Your task to perform on an android device: delete browsing data in the chrome app Image 0: 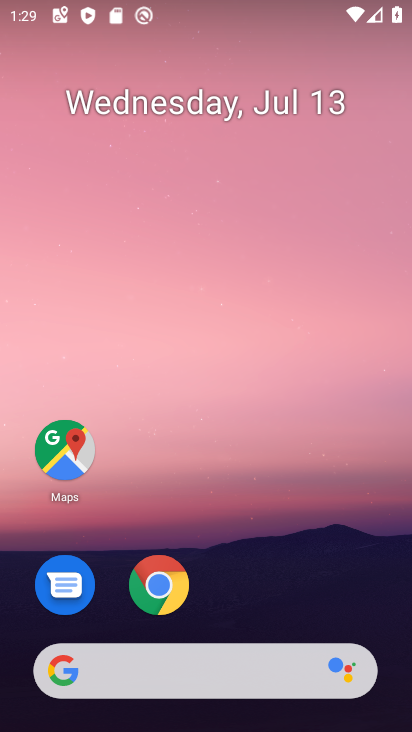
Step 0: click (159, 591)
Your task to perform on an android device: delete browsing data in the chrome app Image 1: 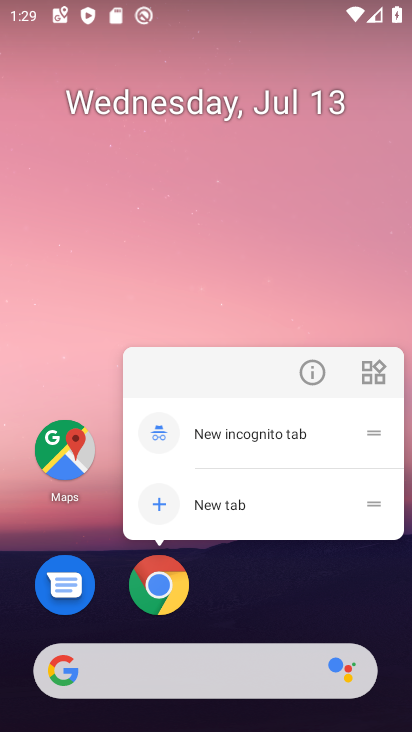
Step 1: click (170, 589)
Your task to perform on an android device: delete browsing data in the chrome app Image 2: 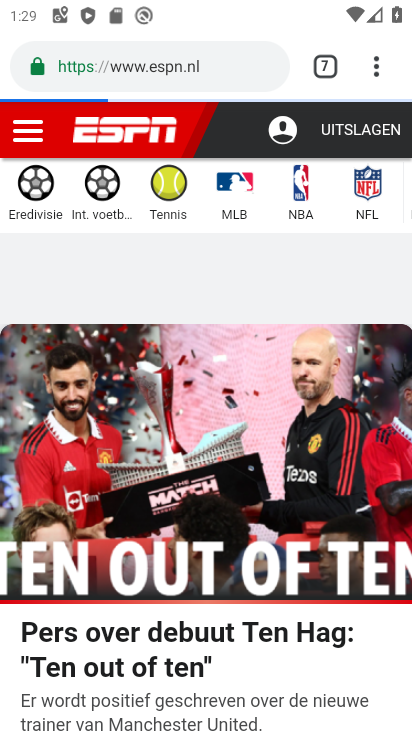
Step 2: drag from (378, 74) to (186, 586)
Your task to perform on an android device: delete browsing data in the chrome app Image 3: 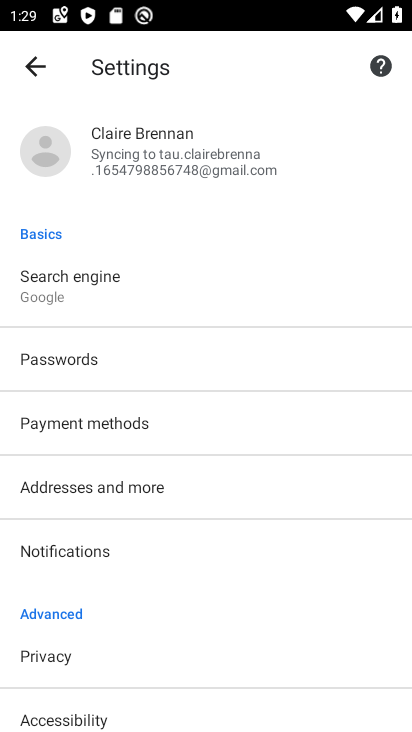
Step 3: click (62, 660)
Your task to perform on an android device: delete browsing data in the chrome app Image 4: 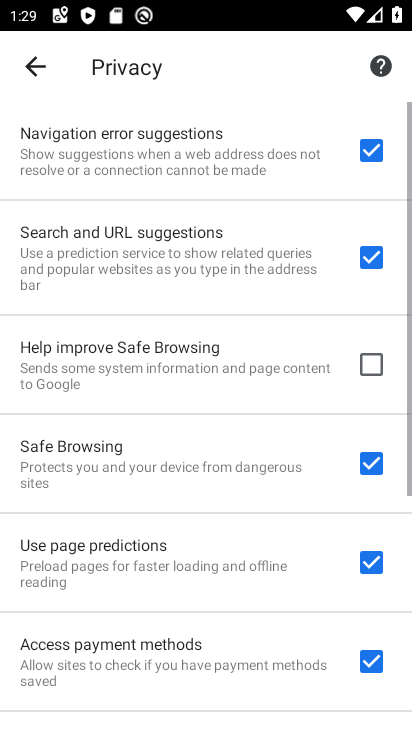
Step 4: drag from (171, 665) to (350, 147)
Your task to perform on an android device: delete browsing data in the chrome app Image 5: 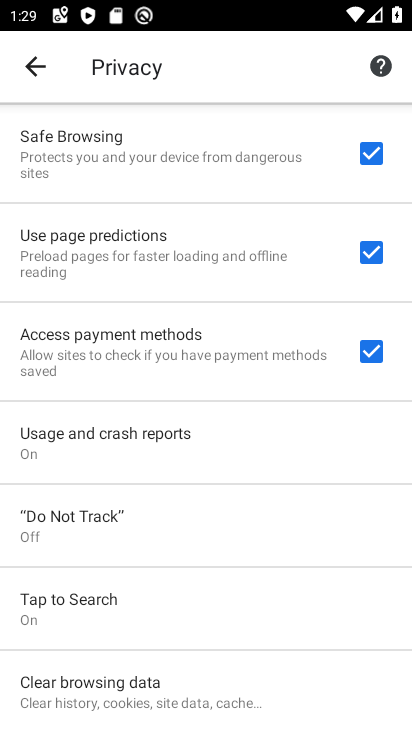
Step 5: click (192, 694)
Your task to perform on an android device: delete browsing data in the chrome app Image 6: 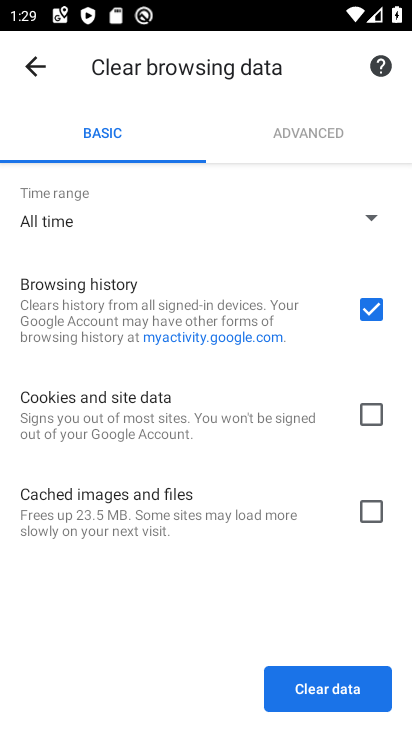
Step 6: click (336, 680)
Your task to perform on an android device: delete browsing data in the chrome app Image 7: 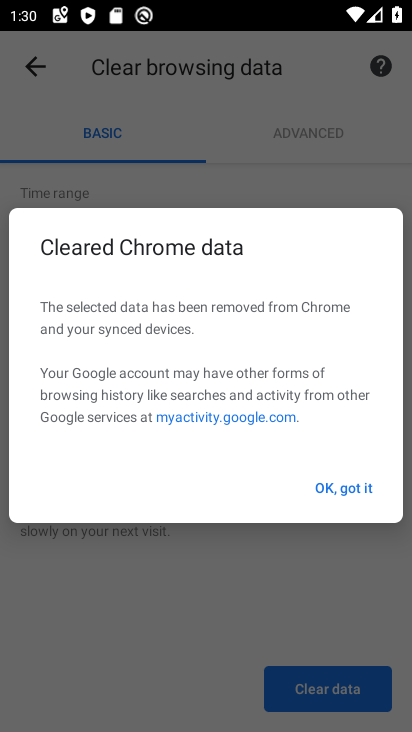
Step 7: click (338, 489)
Your task to perform on an android device: delete browsing data in the chrome app Image 8: 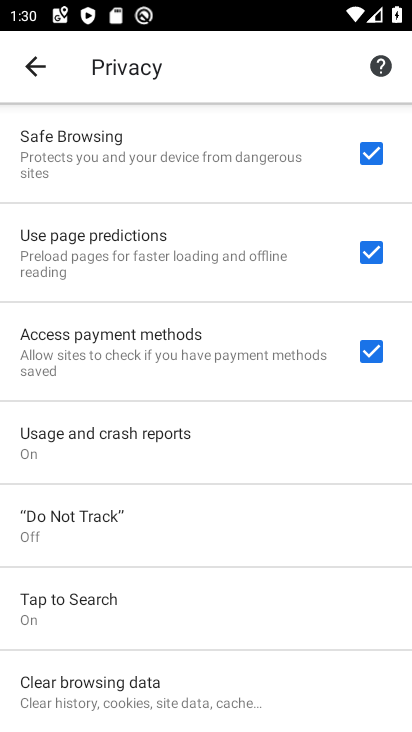
Step 8: task complete